Your task to perform on an android device: Go to battery settings Image 0: 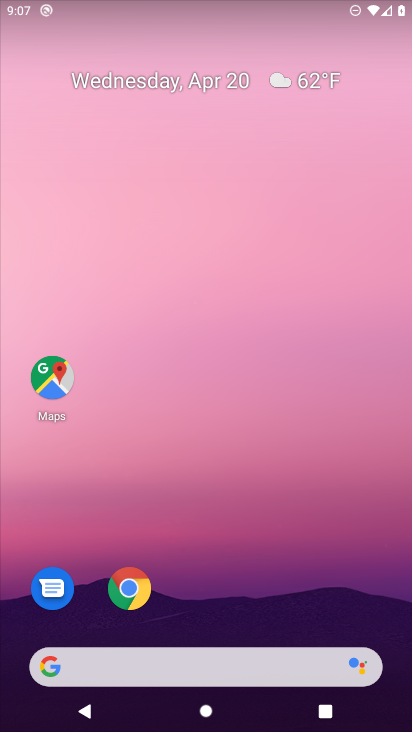
Step 0: drag from (199, 612) to (216, 28)
Your task to perform on an android device: Go to battery settings Image 1: 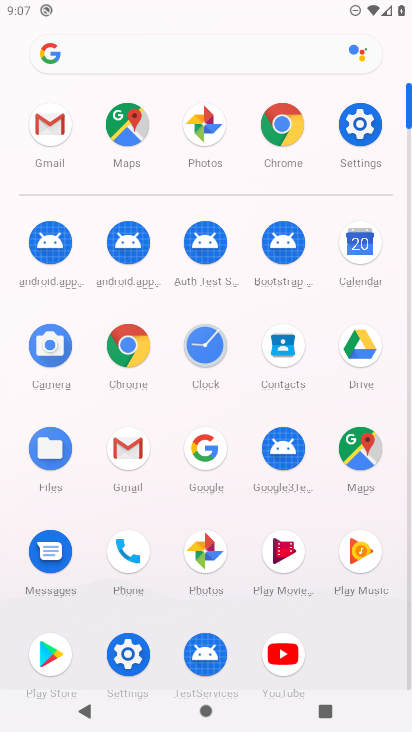
Step 1: click (359, 115)
Your task to perform on an android device: Go to battery settings Image 2: 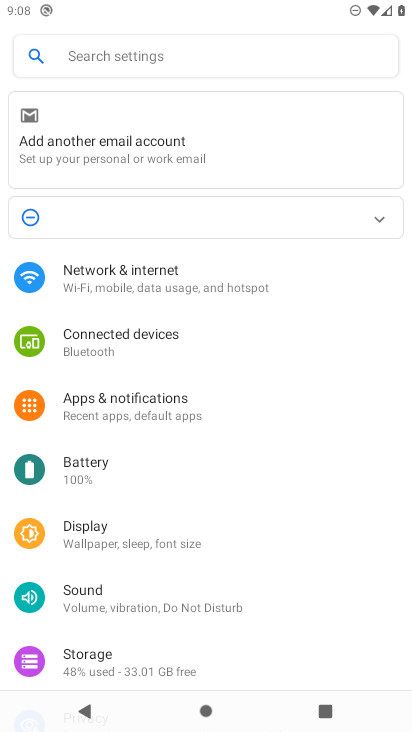
Step 2: click (121, 471)
Your task to perform on an android device: Go to battery settings Image 3: 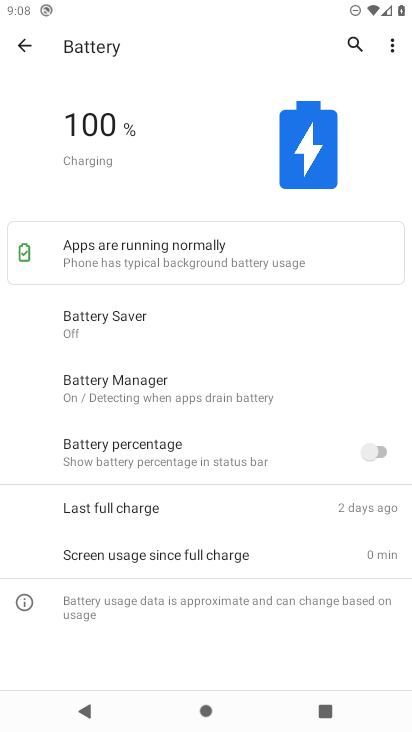
Step 3: task complete